Your task to perform on an android device: Go to Yahoo.com Image 0: 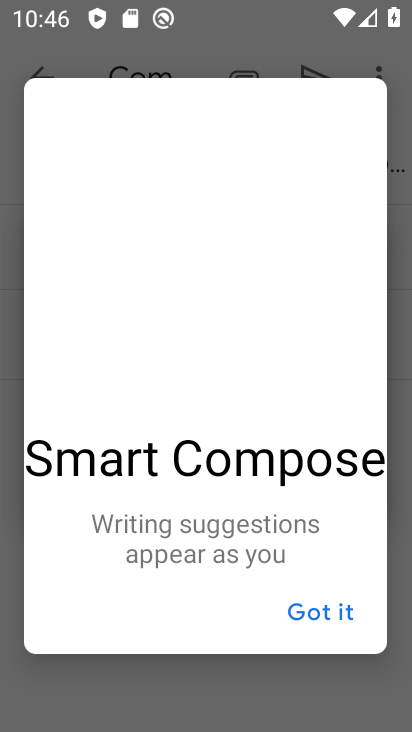
Step 0: click (166, 415)
Your task to perform on an android device: Go to Yahoo.com Image 1: 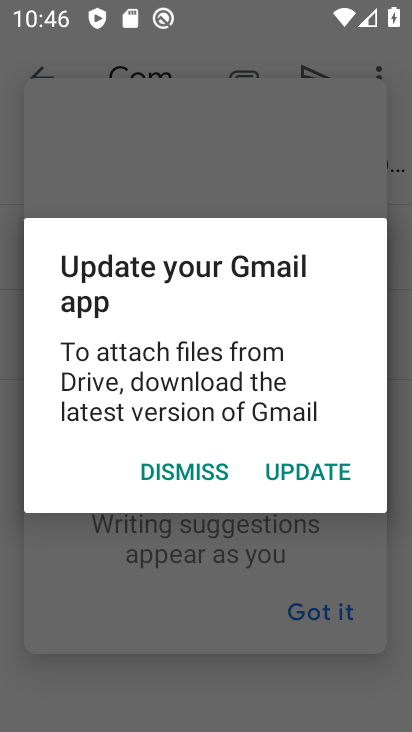
Step 1: press home button
Your task to perform on an android device: Go to Yahoo.com Image 2: 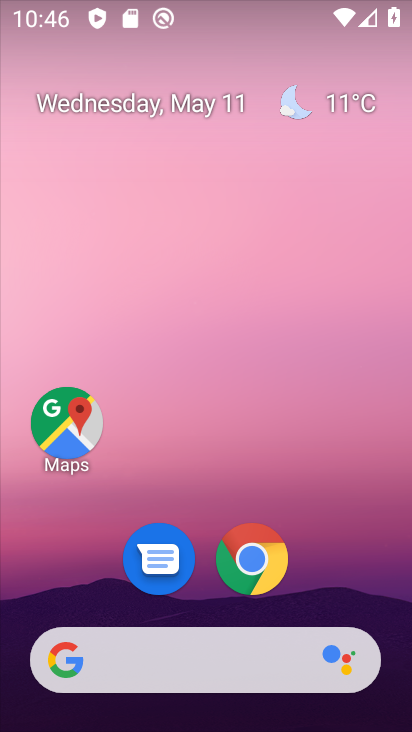
Step 2: click (253, 572)
Your task to perform on an android device: Go to Yahoo.com Image 3: 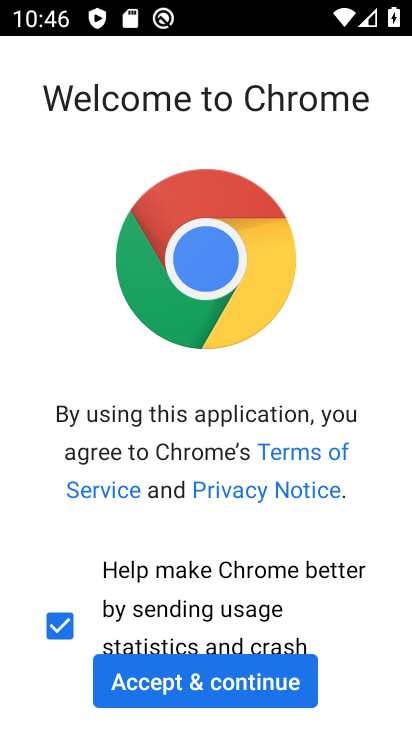
Step 3: click (210, 687)
Your task to perform on an android device: Go to Yahoo.com Image 4: 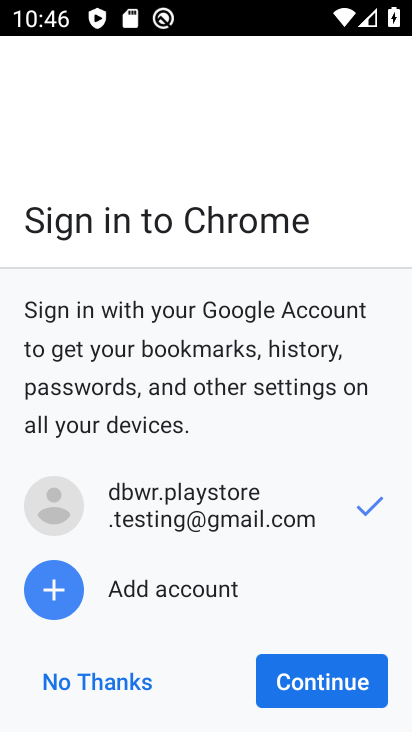
Step 4: click (261, 686)
Your task to perform on an android device: Go to Yahoo.com Image 5: 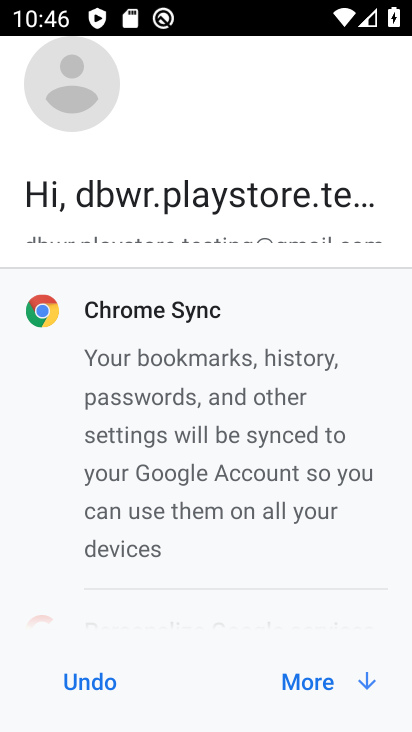
Step 5: click (285, 679)
Your task to perform on an android device: Go to Yahoo.com Image 6: 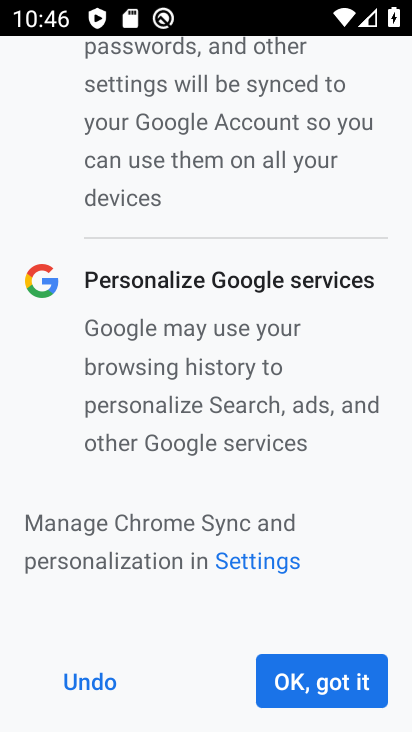
Step 6: click (269, 682)
Your task to perform on an android device: Go to Yahoo.com Image 7: 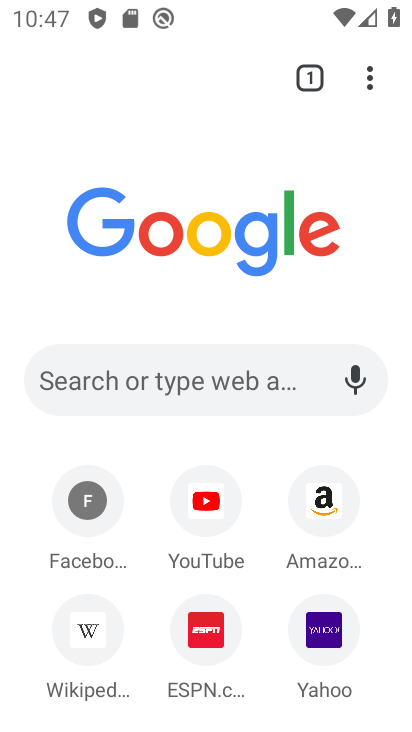
Step 7: click (314, 629)
Your task to perform on an android device: Go to Yahoo.com Image 8: 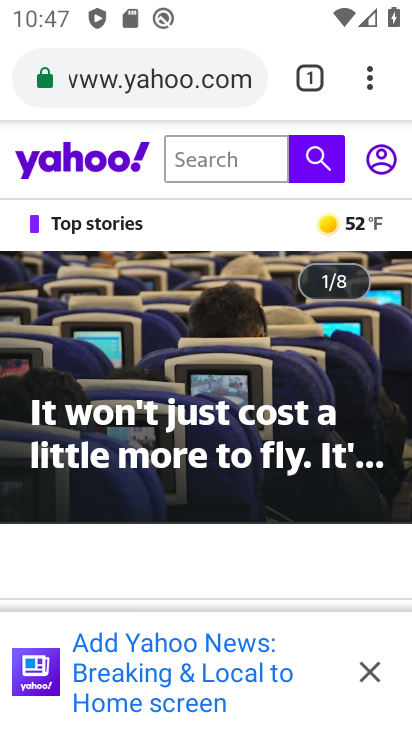
Step 8: task complete